Your task to perform on an android device: show emergency info Image 0: 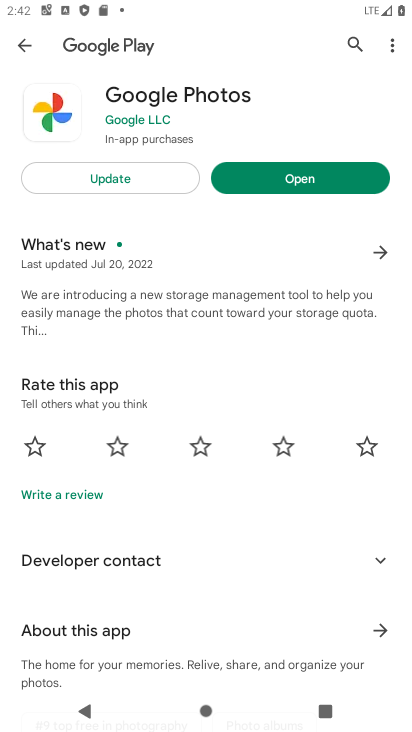
Step 0: press home button
Your task to perform on an android device: show emergency info Image 1: 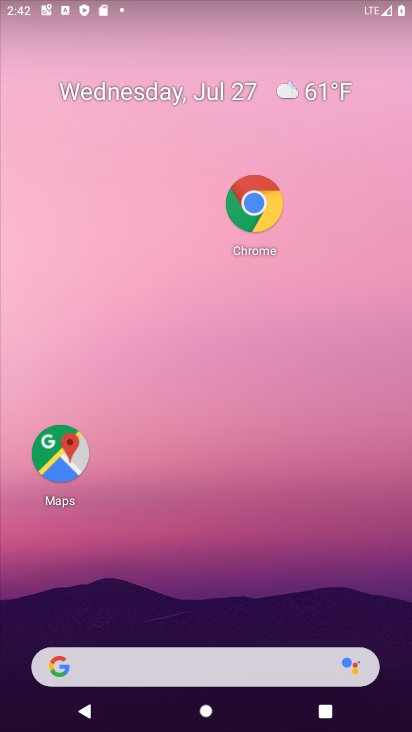
Step 1: drag from (233, 492) to (235, 17)
Your task to perform on an android device: show emergency info Image 2: 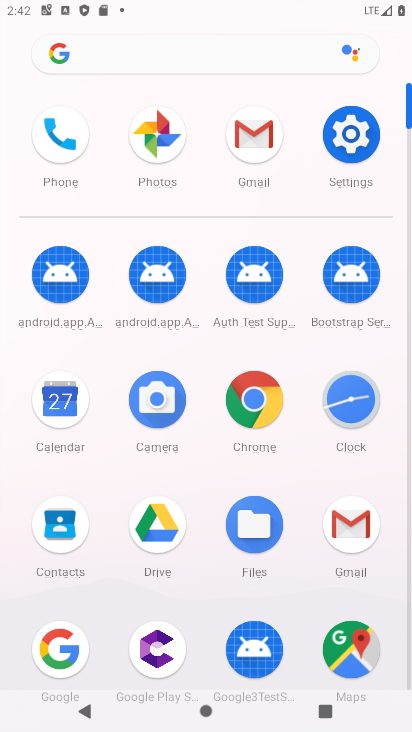
Step 2: click (364, 140)
Your task to perform on an android device: show emergency info Image 3: 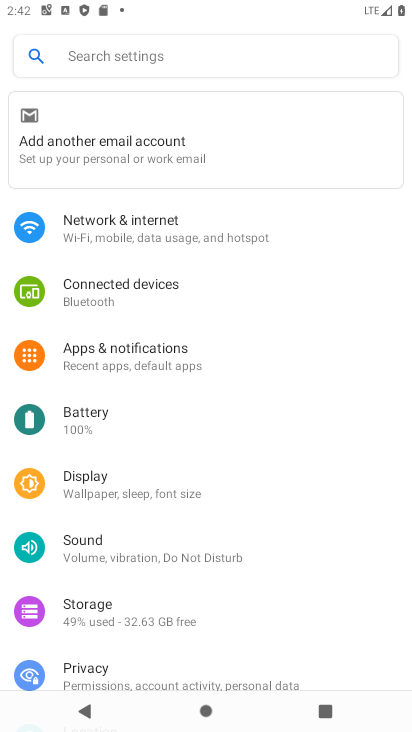
Step 3: click (236, 83)
Your task to perform on an android device: show emergency info Image 4: 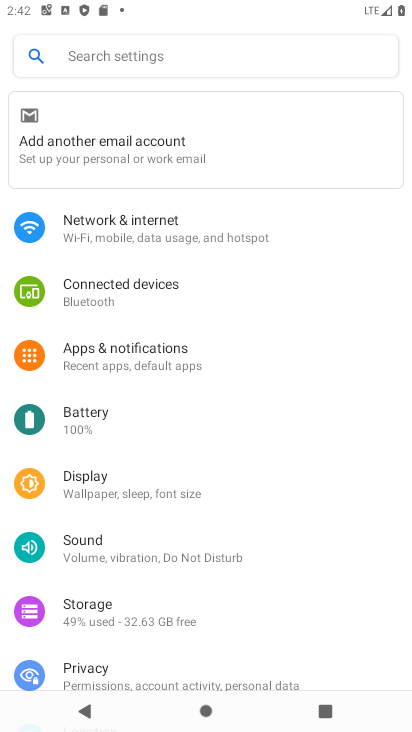
Step 4: drag from (163, 437) to (200, 179)
Your task to perform on an android device: show emergency info Image 5: 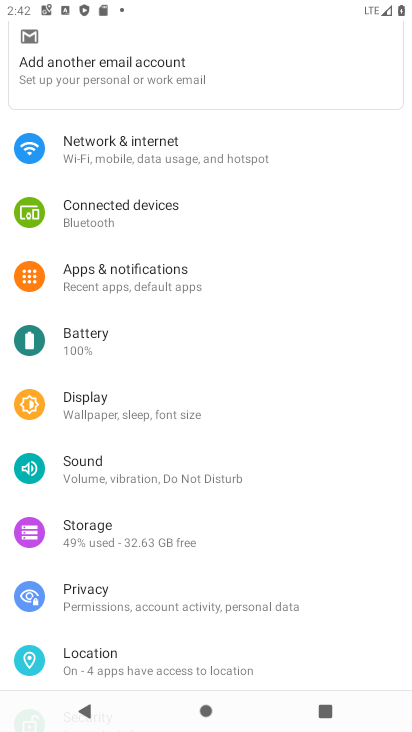
Step 5: drag from (144, 637) to (144, 202)
Your task to perform on an android device: show emergency info Image 6: 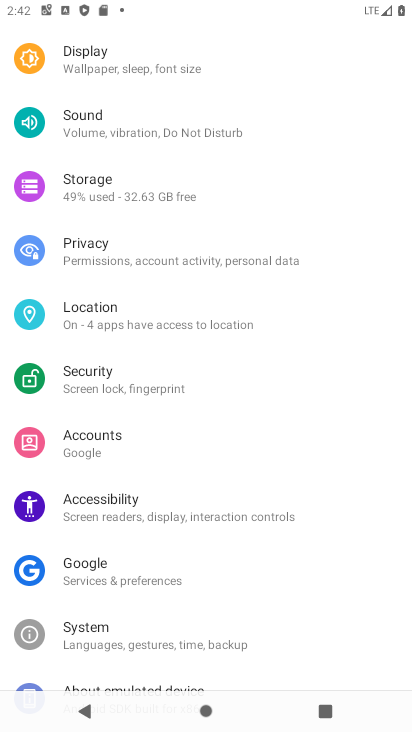
Step 6: drag from (130, 656) to (189, 197)
Your task to perform on an android device: show emergency info Image 7: 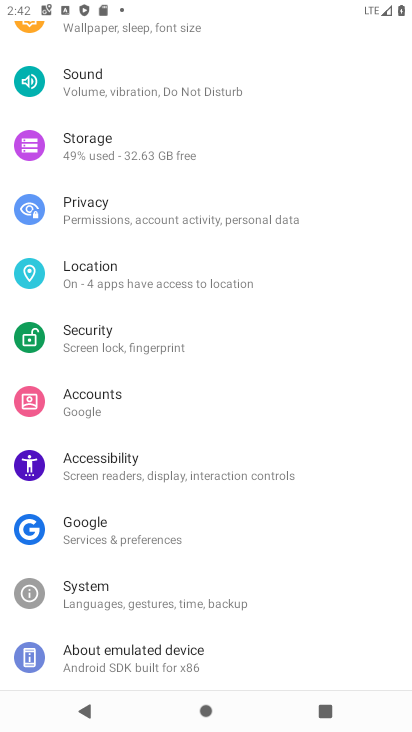
Step 7: click (129, 641)
Your task to perform on an android device: show emergency info Image 8: 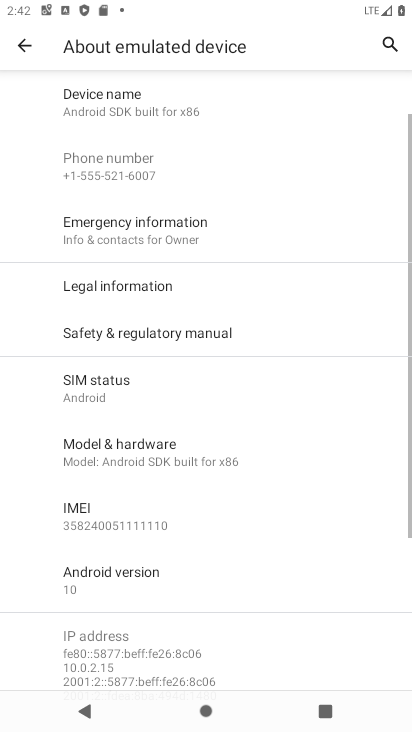
Step 8: click (207, 235)
Your task to perform on an android device: show emergency info Image 9: 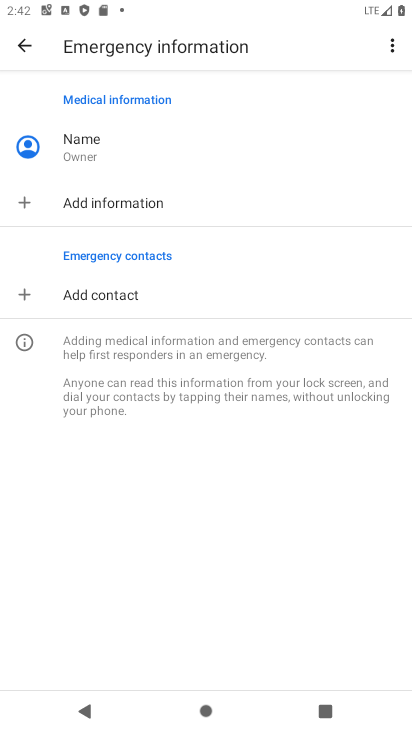
Step 9: task complete